Your task to perform on an android device: Open notification settings Image 0: 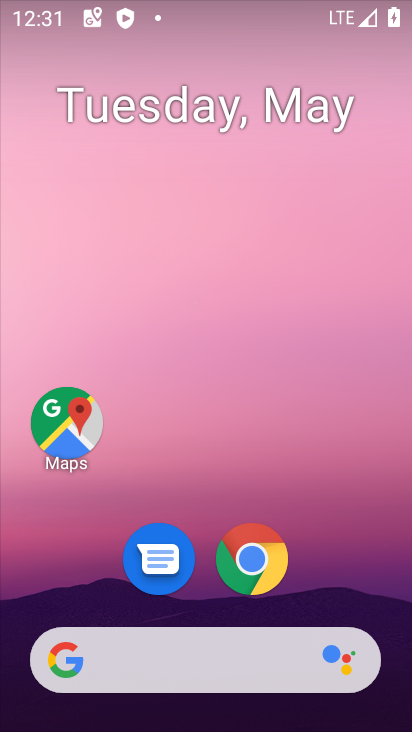
Step 0: drag from (361, 583) to (387, 84)
Your task to perform on an android device: Open notification settings Image 1: 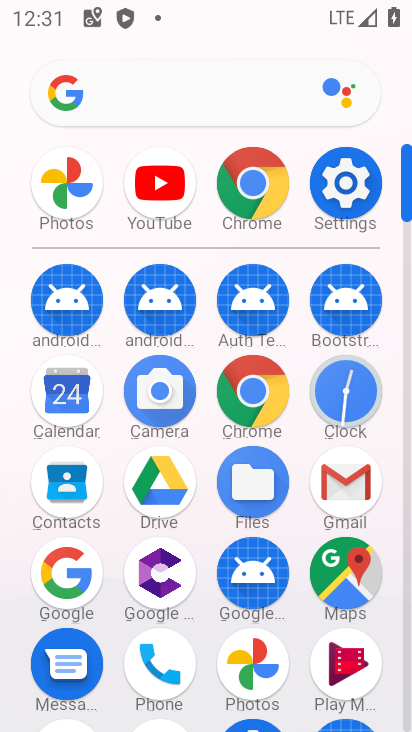
Step 1: click (360, 195)
Your task to perform on an android device: Open notification settings Image 2: 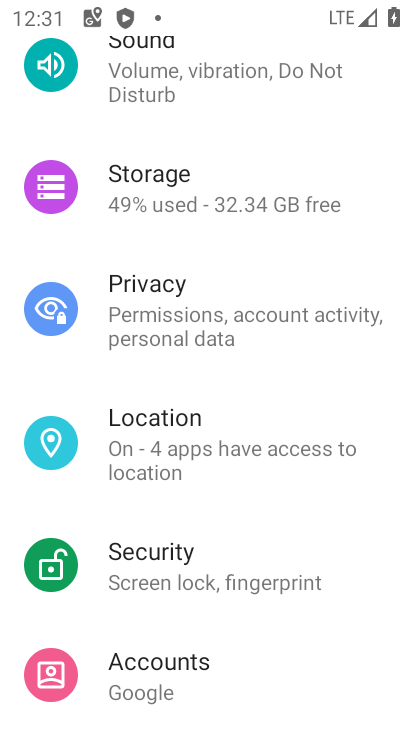
Step 2: drag from (223, 617) to (324, 199)
Your task to perform on an android device: Open notification settings Image 3: 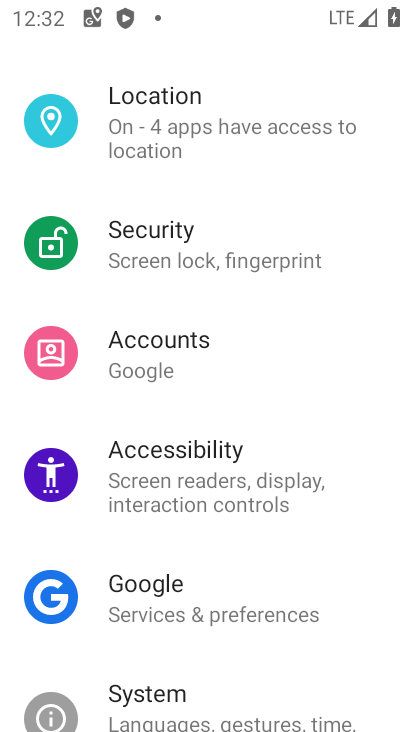
Step 3: drag from (284, 210) to (307, 703)
Your task to perform on an android device: Open notification settings Image 4: 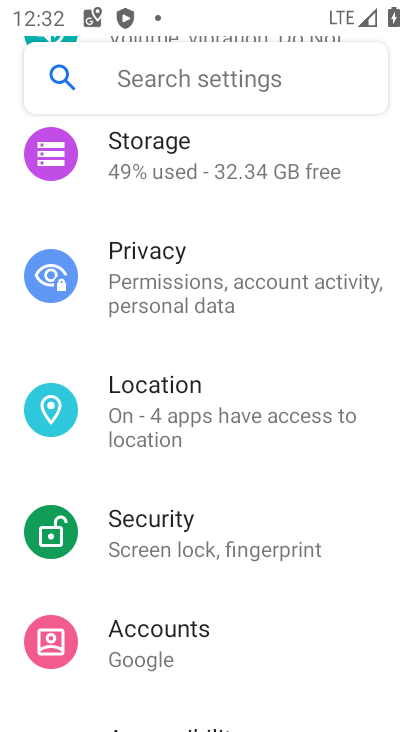
Step 4: drag from (204, 416) to (227, 689)
Your task to perform on an android device: Open notification settings Image 5: 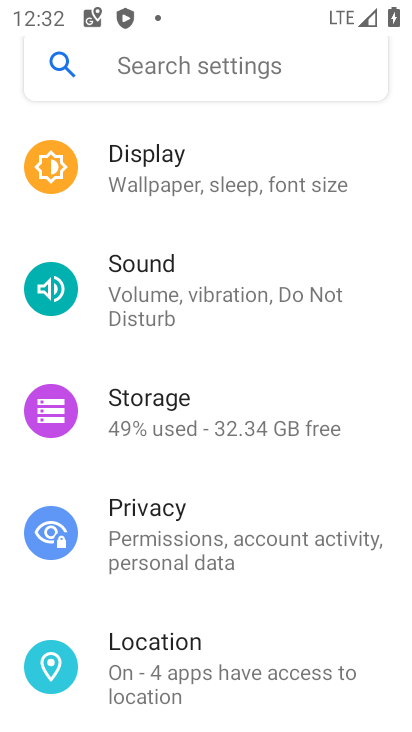
Step 5: drag from (225, 316) to (235, 624)
Your task to perform on an android device: Open notification settings Image 6: 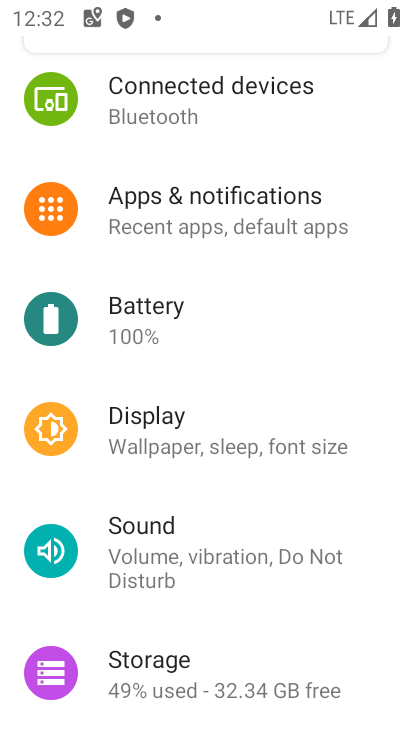
Step 6: click (284, 275)
Your task to perform on an android device: Open notification settings Image 7: 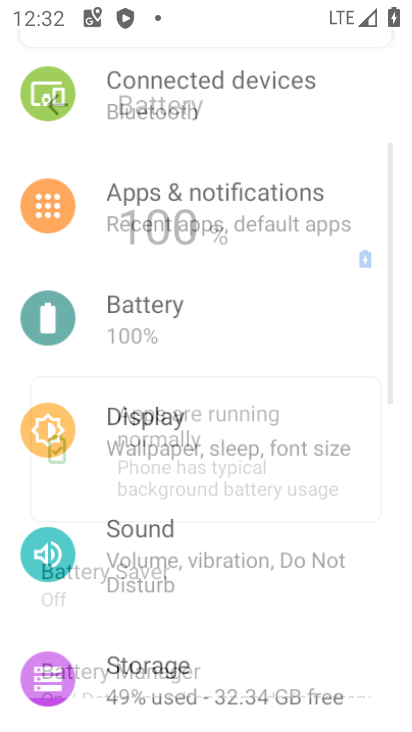
Step 7: task complete